Your task to perform on an android device: Is it going to rain today? Image 0: 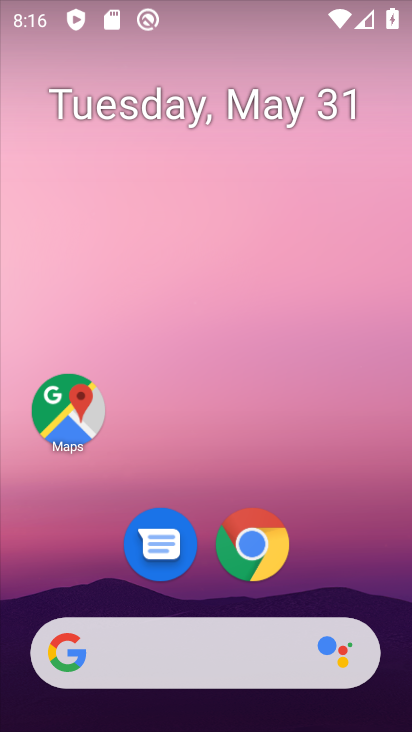
Step 0: drag from (30, 267) to (384, 287)
Your task to perform on an android device: Is it going to rain today? Image 1: 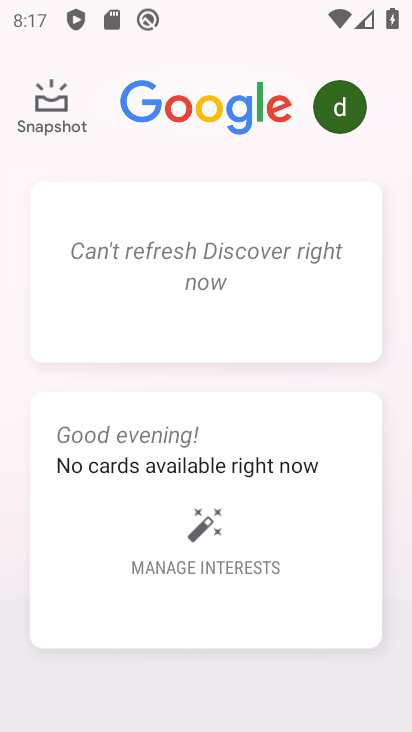
Step 1: click (202, 286)
Your task to perform on an android device: Is it going to rain today? Image 2: 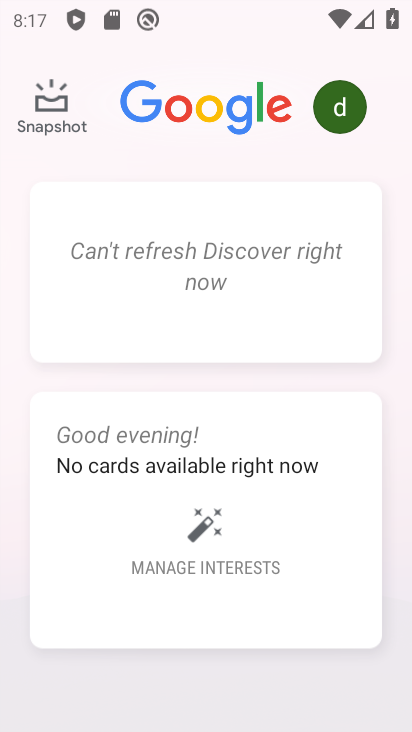
Step 2: task complete